Your task to perform on an android device: Show me popular games on the Play Store Image 0: 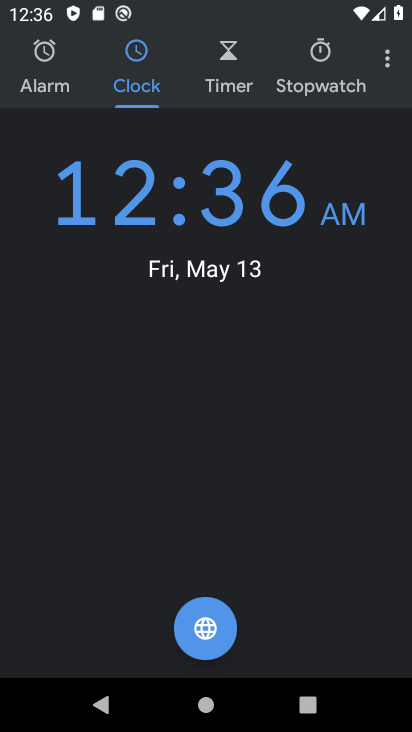
Step 0: press home button
Your task to perform on an android device: Show me popular games on the Play Store Image 1: 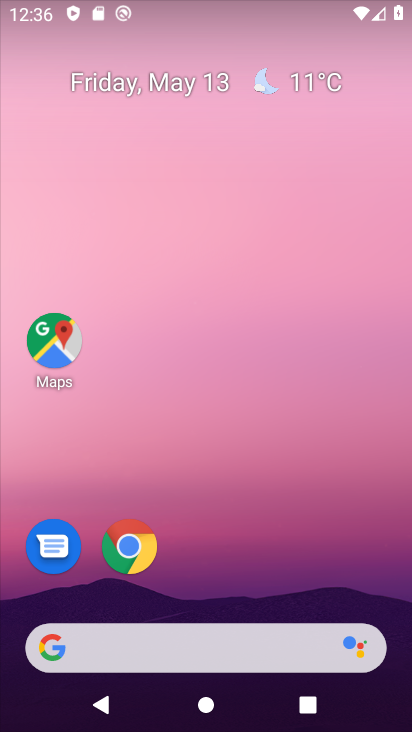
Step 1: drag from (211, 658) to (204, 137)
Your task to perform on an android device: Show me popular games on the Play Store Image 2: 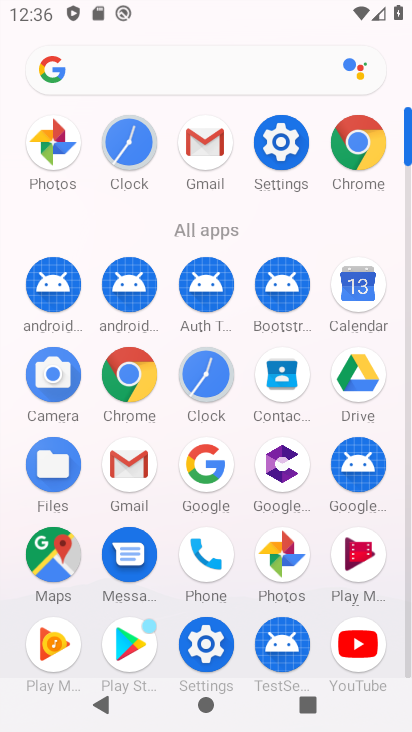
Step 2: click (138, 645)
Your task to perform on an android device: Show me popular games on the Play Store Image 3: 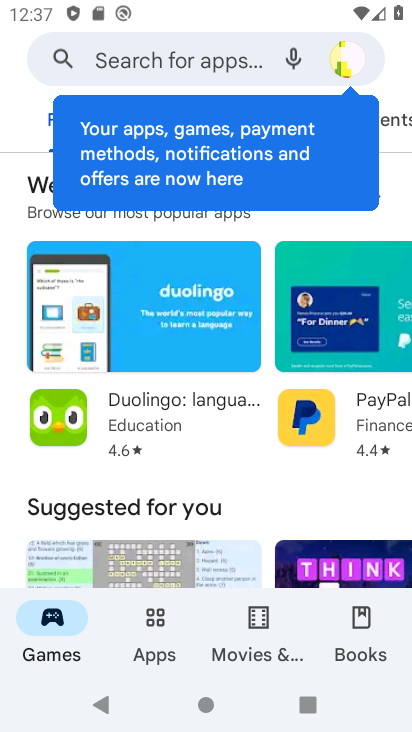
Step 3: task complete